Your task to perform on an android device: turn on wifi Image 0: 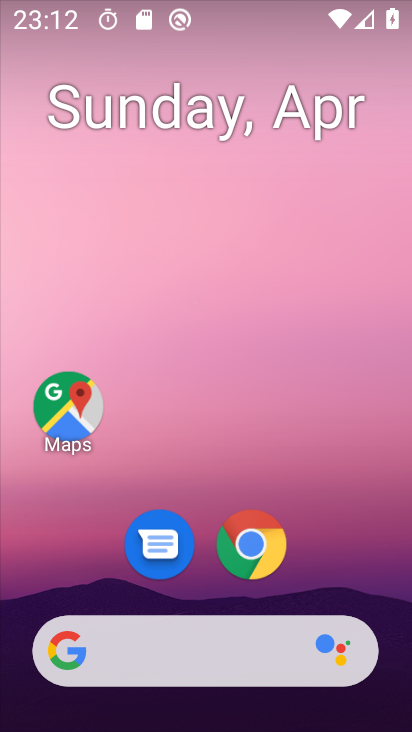
Step 0: drag from (327, 572) to (335, 311)
Your task to perform on an android device: turn on wifi Image 1: 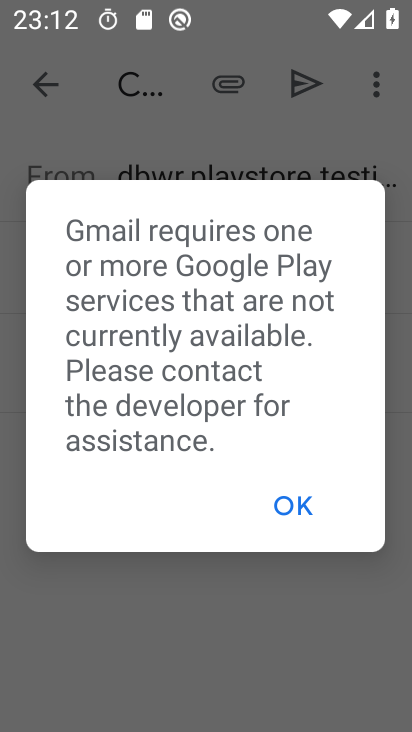
Step 1: press home button
Your task to perform on an android device: turn on wifi Image 2: 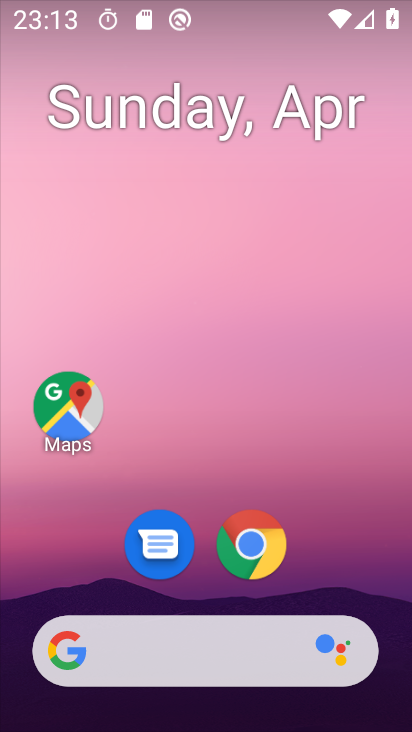
Step 2: drag from (353, 541) to (367, 269)
Your task to perform on an android device: turn on wifi Image 3: 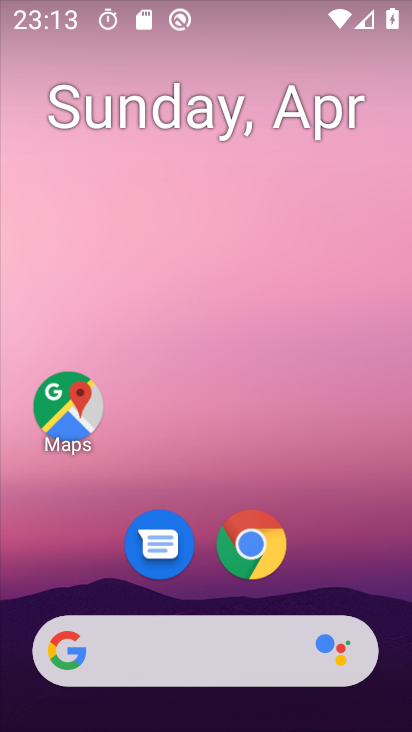
Step 3: drag from (315, 582) to (328, 239)
Your task to perform on an android device: turn on wifi Image 4: 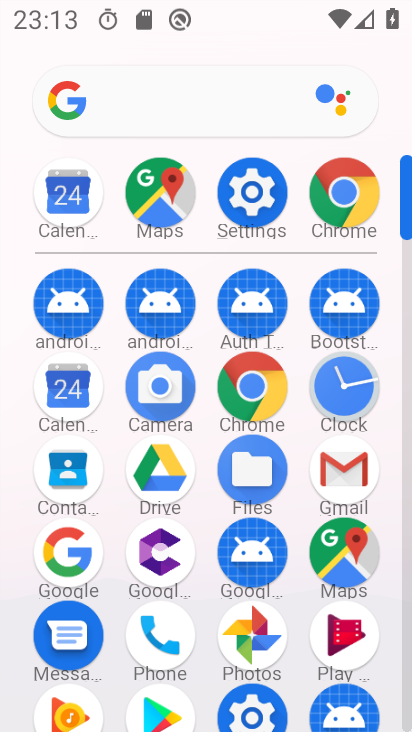
Step 4: click (251, 190)
Your task to perform on an android device: turn on wifi Image 5: 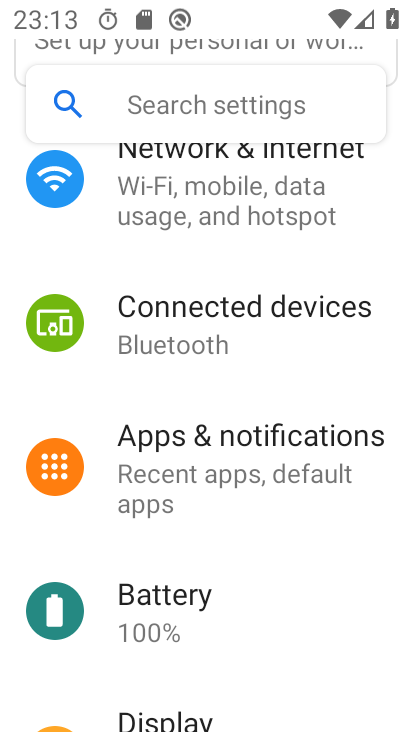
Step 5: click (216, 197)
Your task to perform on an android device: turn on wifi Image 6: 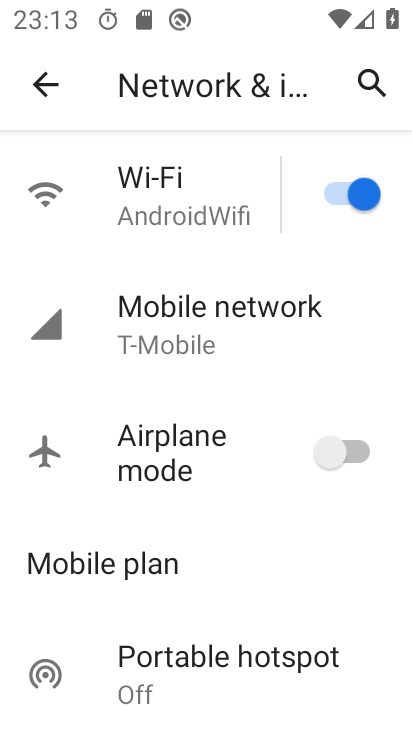
Step 6: task complete